Your task to perform on an android device: Open Android settings Image 0: 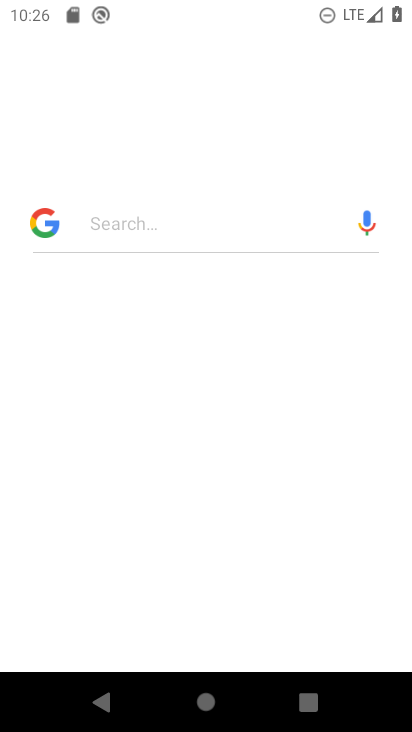
Step 0: drag from (319, 547) to (334, 459)
Your task to perform on an android device: Open Android settings Image 1: 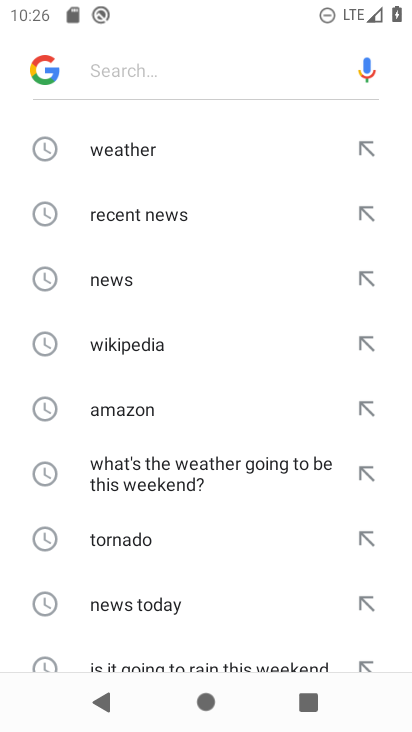
Step 1: press home button
Your task to perform on an android device: Open Android settings Image 2: 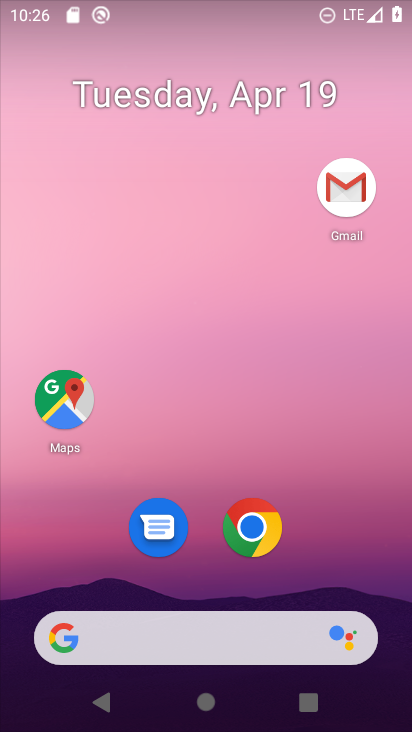
Step 2: drag from (378, 550) to (378, 140)
Your task to perform on an android device: Open Android settings Image 3: 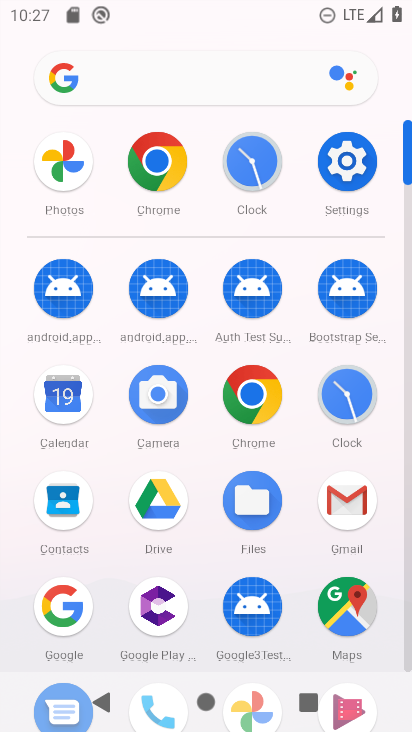
Step 3: click (357, 157)
Your task to perform on an android device: Open Android settings Image 4: 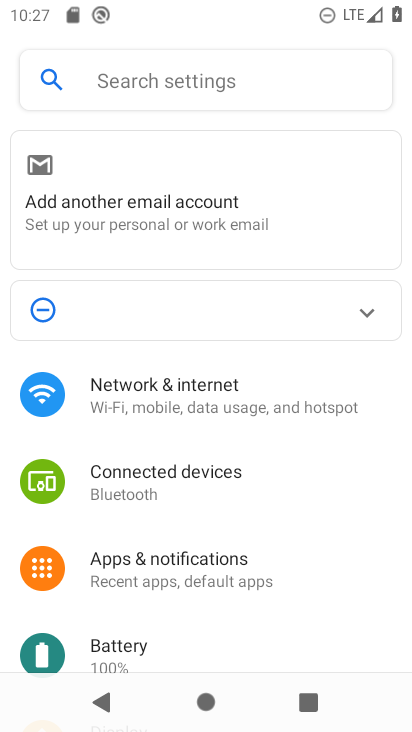
Step 4: drag from (266, 622) to (256, 245)
Your task to perform on an android device: Open Android settings Image 5: 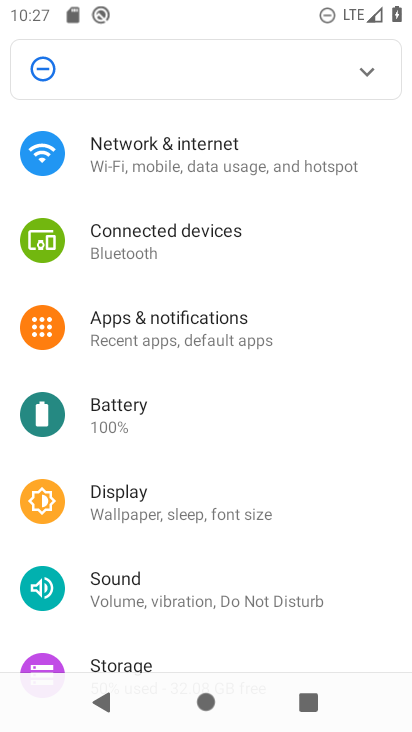
Step 5: drag from (239, 638) to (274, 235)
Your task to perform on an android device: Open Android settings Image 6: 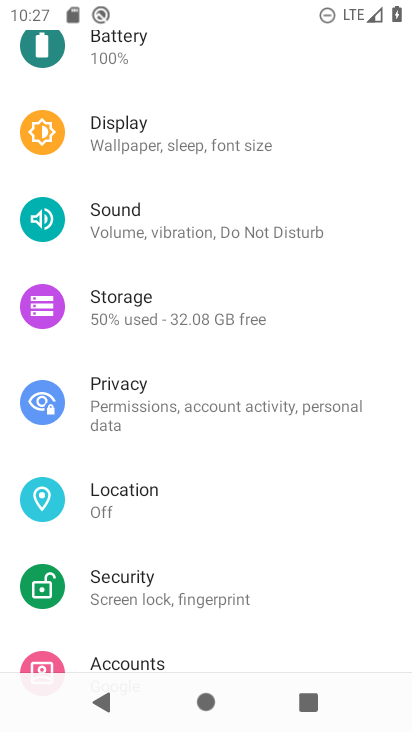
Step 6: drag from (262, 620) to (319, 205)
Your task to perform on an android device: Open Android settings Image 7: 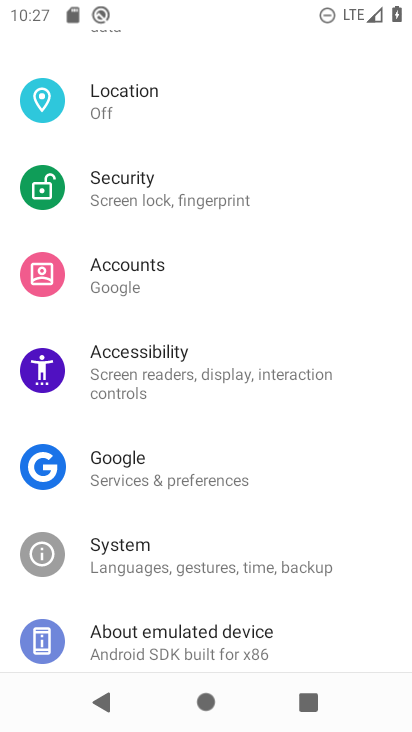
Step 7: click (269, 635)
Your task to perform on an android device: Open Android settings Image 8: 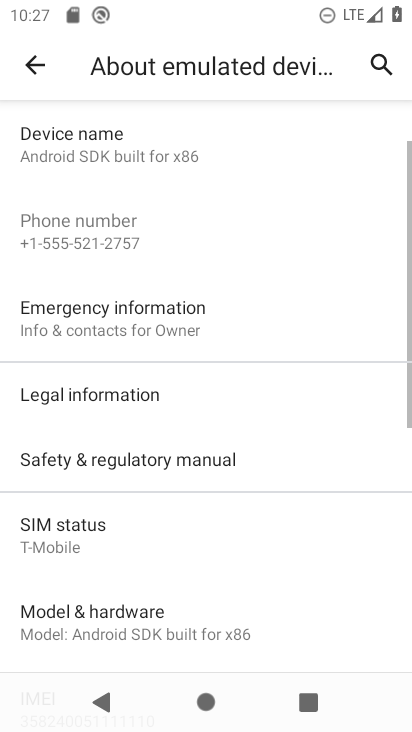
Step 8: drag from (297, 512) to (300, 208)
Your task to perform on an android device: Open Android settings Image 9: 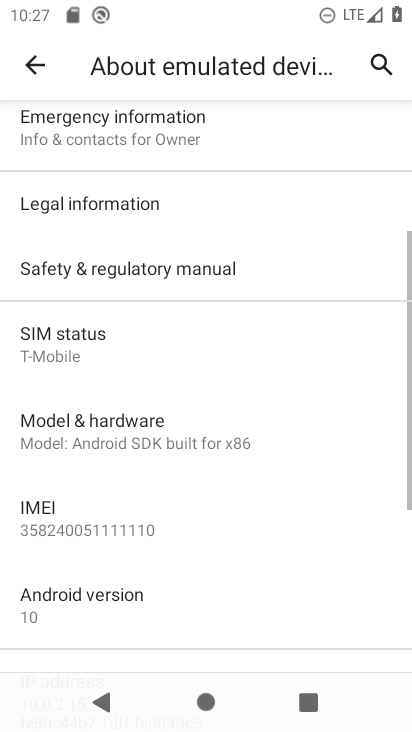
Step 9: drag from (253, 493) to (276, 274)
Your task to perform on an android device: Open Android settings Image 10: 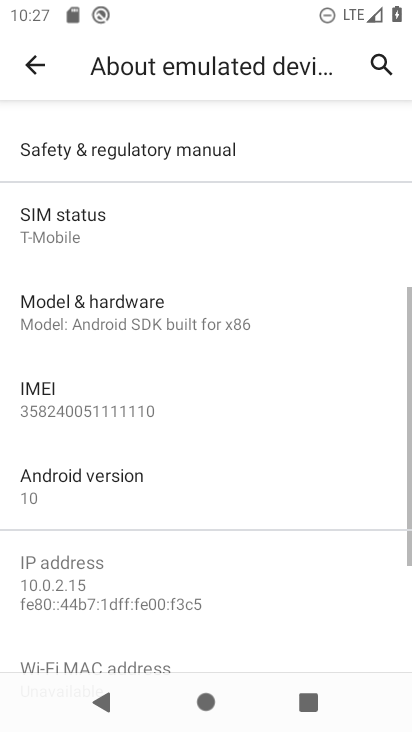
Step 10: drag from (265, 600) to (318, 260)
Your task to perform on an android device: Open Android settings Image 11: 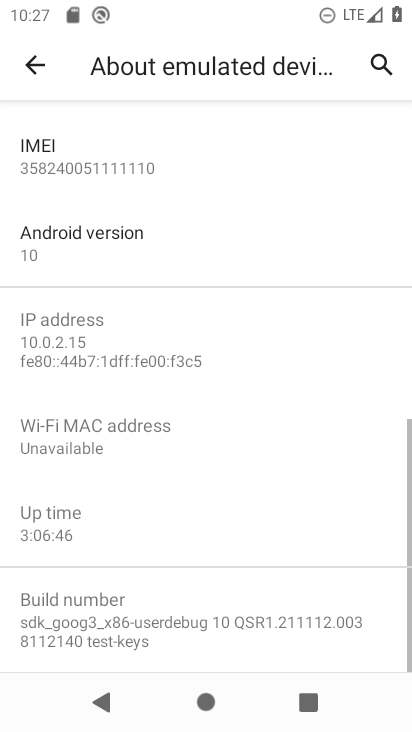
Step 11: drag from (342, 587) to (335, 295)
Your task to perform on an android device: Open Android settings Image 12: 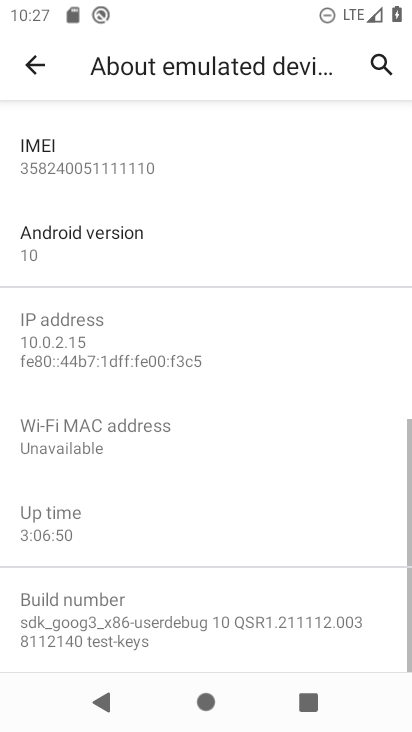
Step 12: click (124, 239)
Your task to perform on an android device: Open Android settings Image 13: 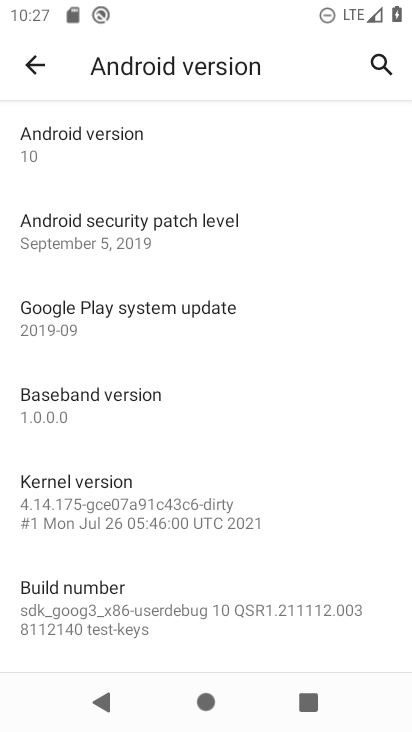
Step 13: task complete